Your task to perform on an android device: Show me productivity apps on the Play Store Image 0: 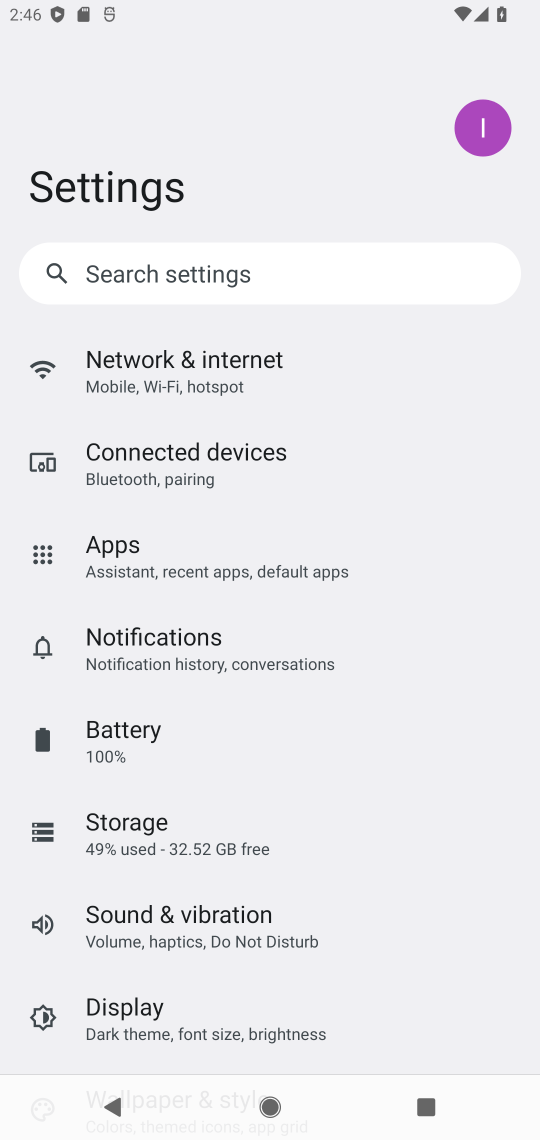
Step 0: press home button
Your task to perform on an android device: Show me productivity apps on the Play Store Image 1: 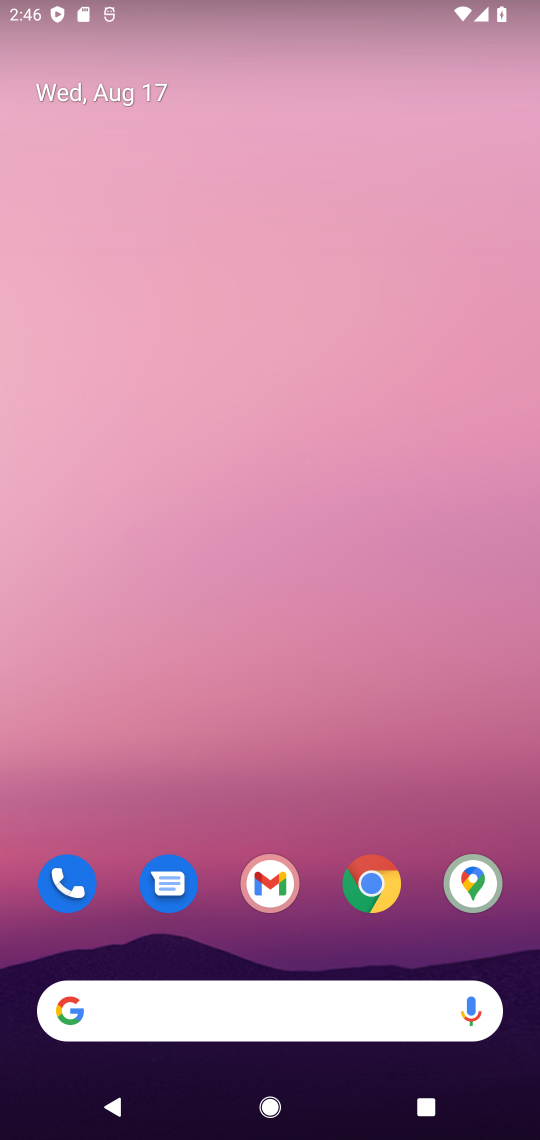
Step 1: drag from (334, 721) to (199, 38)
Your task to perform on an android device: Show me productivity apps on the Play Store Image 2: 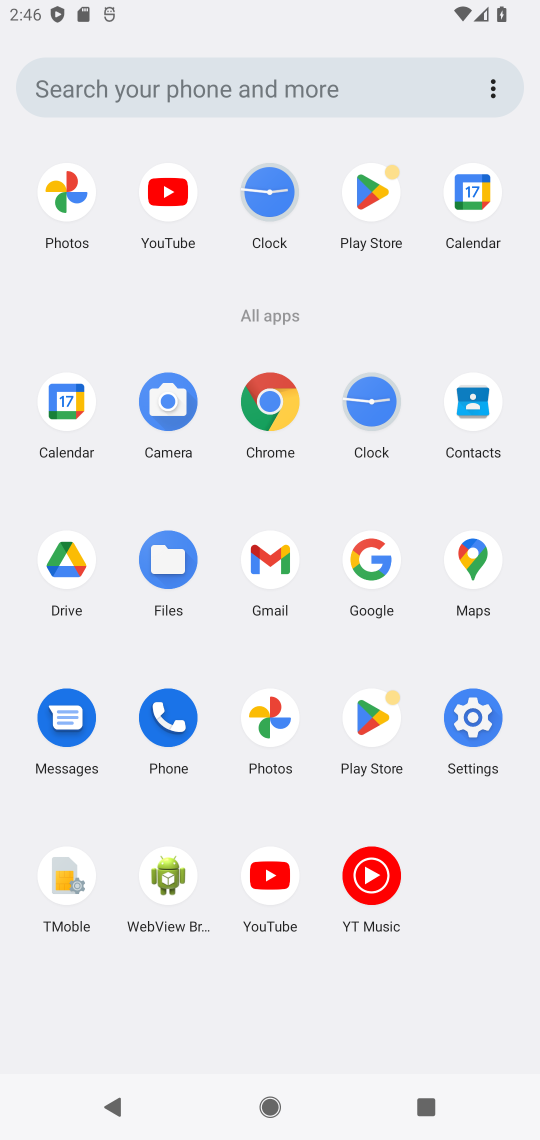
Step 2: click (369, 700)
Your task to perform on an android device: Show me productivity apps on the Play Store Image 3: 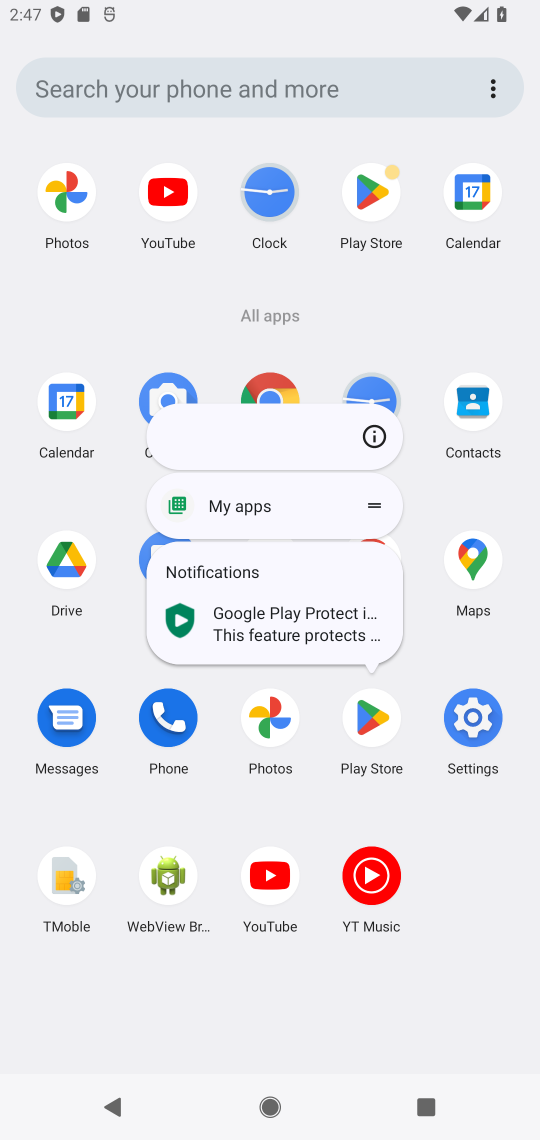
Step 3: click (366, 718)
Your task to perform on an android device: Show me productivity apps on the Play Store Image 4: 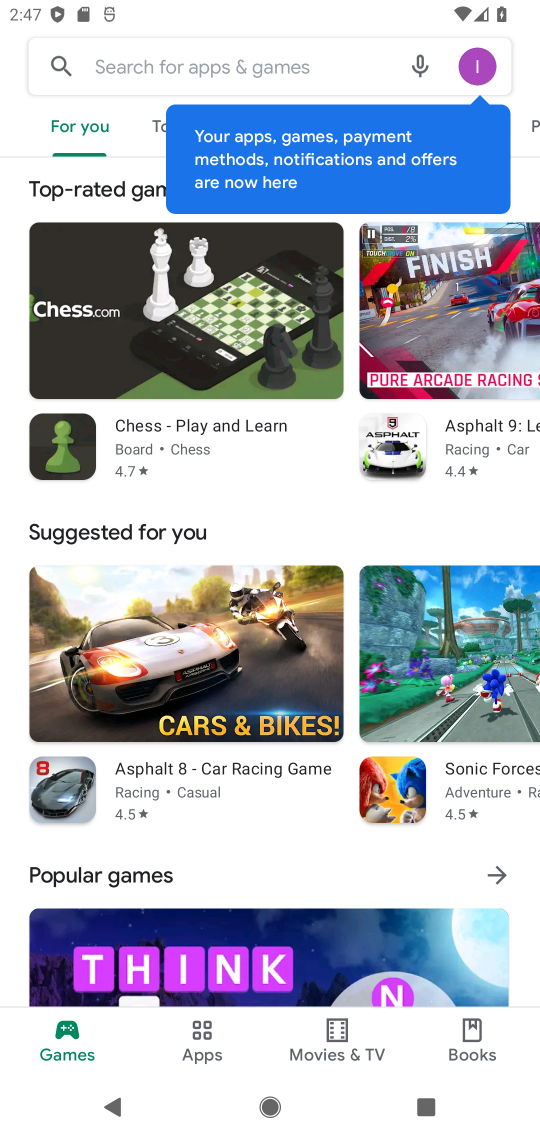
Step 4: click (218, 1029)
Your task to perform on an android device: Show me productivity apps on the Play Store Image 5: 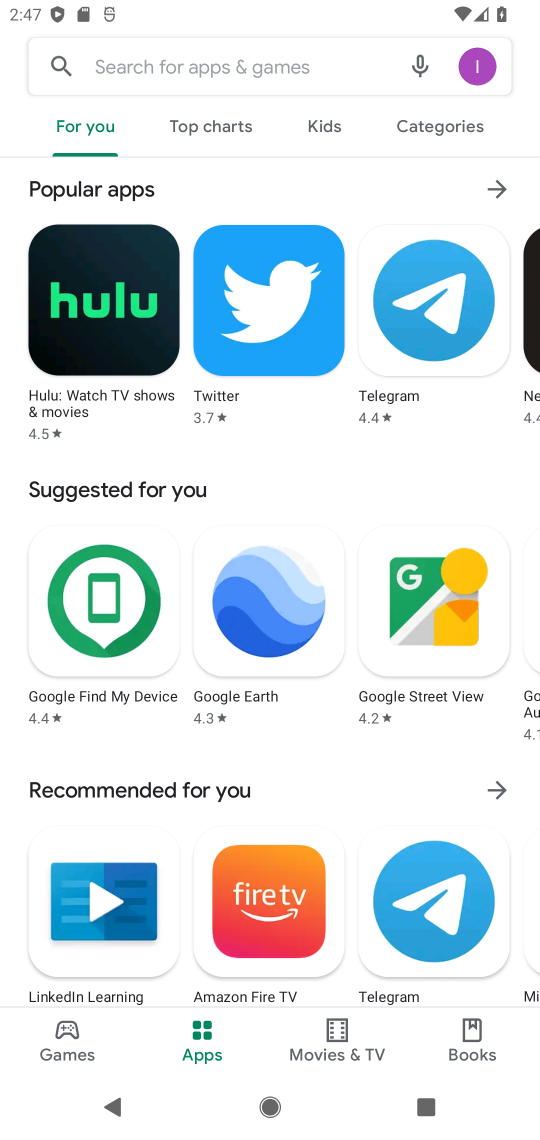
Step 5: task complete